Your task to perform on an android device: add a label to a message in the gmail app Image 0: 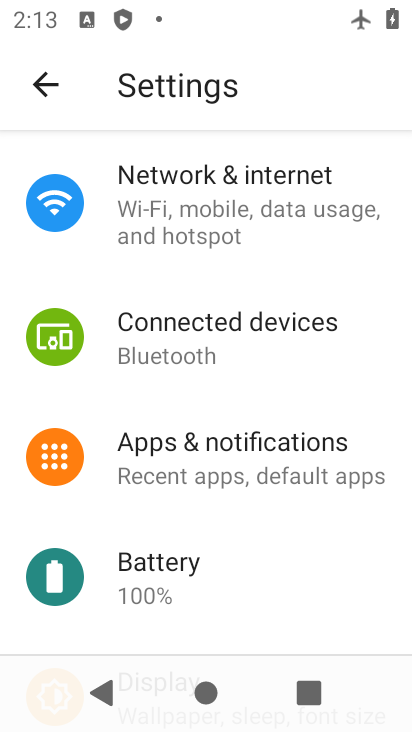
Step 0: press home button
Your task to perform on an android device: add a label to a message in the gmail app Image 1: 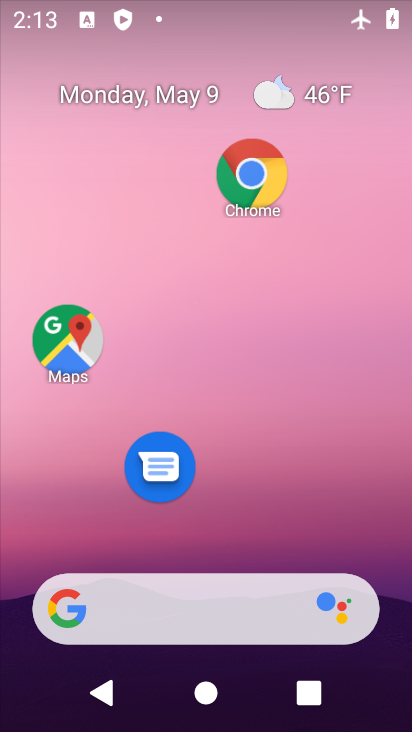
Step 1: drag from (326, 534) to (328, 4)
Your task to perform on an android device: add a label to a message in the gmail app Image 2: 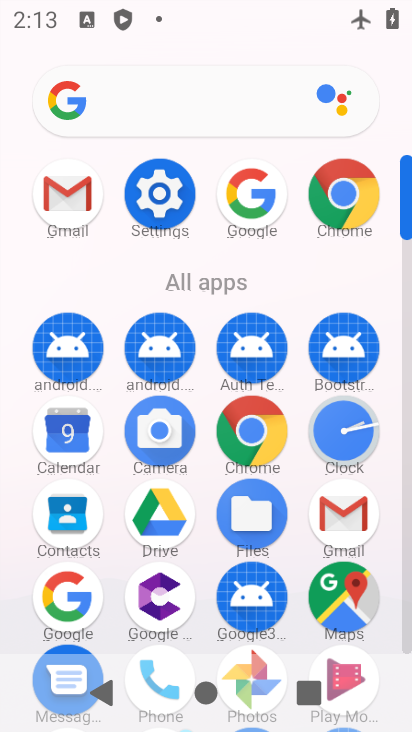
Step 2: click (343, 531)
Your task to perform on an android device: add a label to a message in the gmail app Image 3: 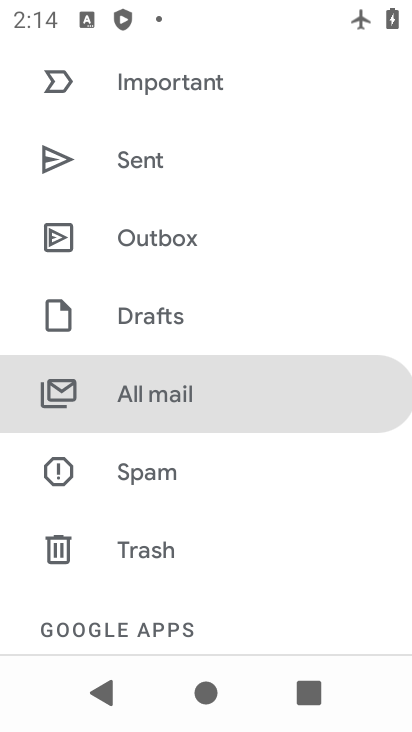
Step 3: drag from (142, 561) to (143, 322)
Your task to perform on an android device: add a label to a message in the gmail app Image 4: 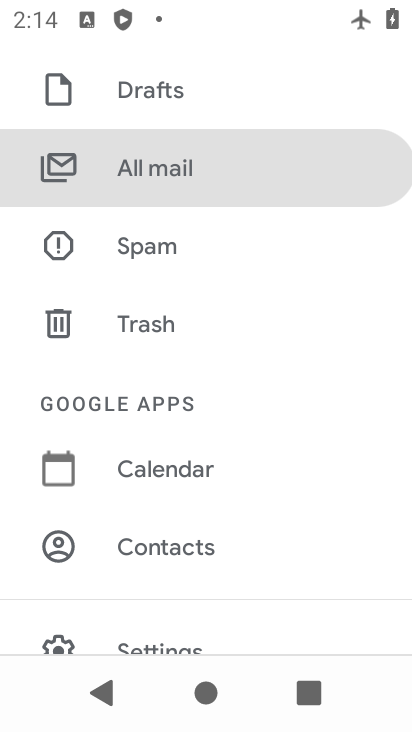
Step 4: drag from (115, 458) to (131, 261)
Your task to perform on an android device: add a label to a message in the gmail app Image 5: 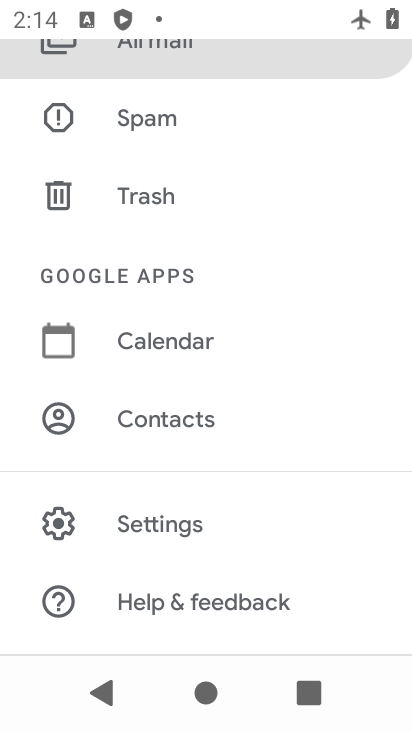
Step 5: click (194, 57)
Your task to perform on an android device: add a label to a message in the gmail app Image 6: 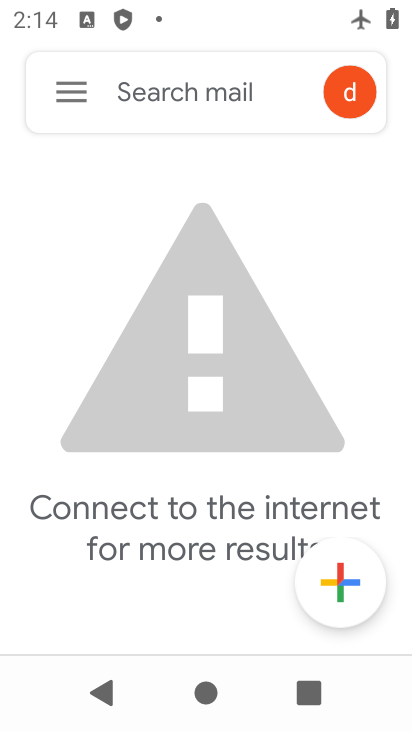
Step 6: task complete